Your task to perform on an android device: check battery use Image 0: 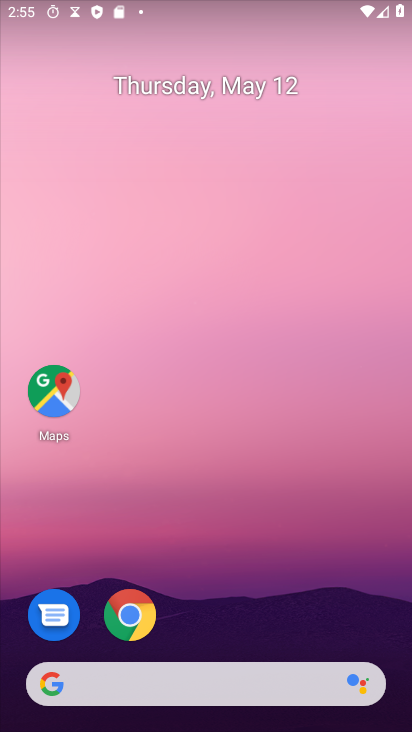
Step 0: drag from (62, 610) to (337, 175)
Your task to perform on an android device: check battery use Image 1: 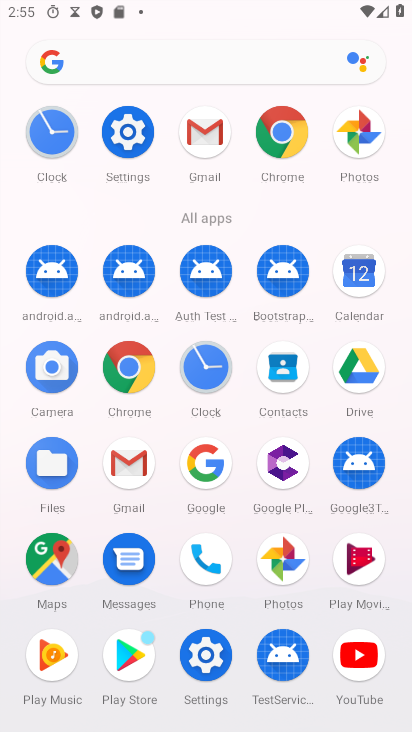
Step 1: click (114, 137)
Your task to perform on an android device: check battery use Image 2: 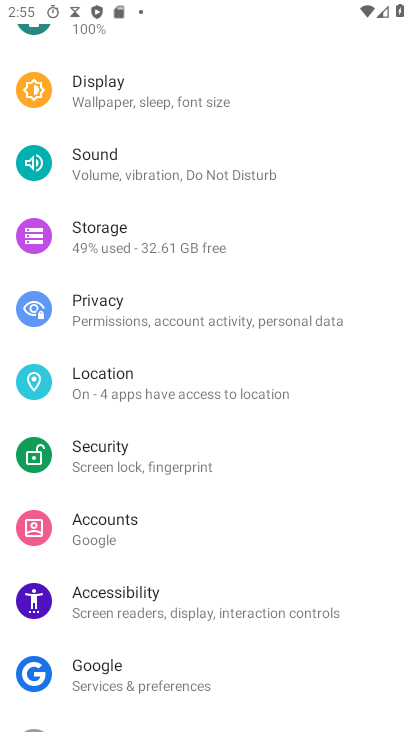
Step 2: drag from (124, 89) to (36, 495)
Your task to perform on an android device: check battery use Image 3: 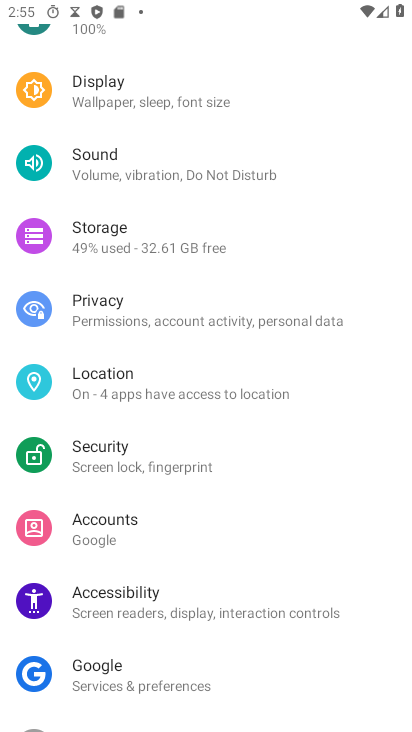
Step 3: drag from (175, 76) to (157, 585)
Your task to perform on an android device: check battery use Image 4: 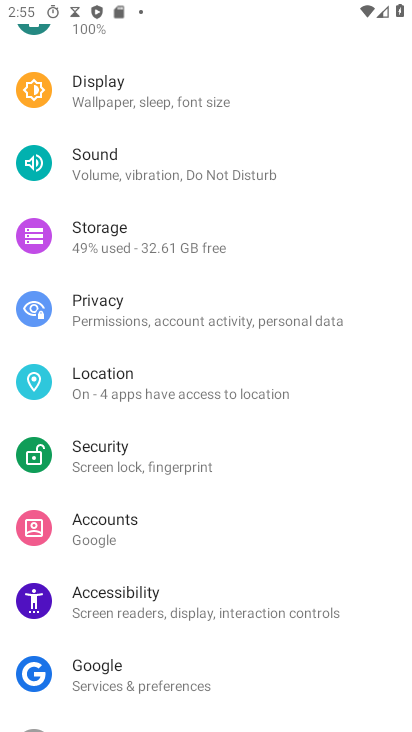
Step 4: drag from (285, 158) to (242, 730)
Your task to perform on an android device: check battery use Image 5: 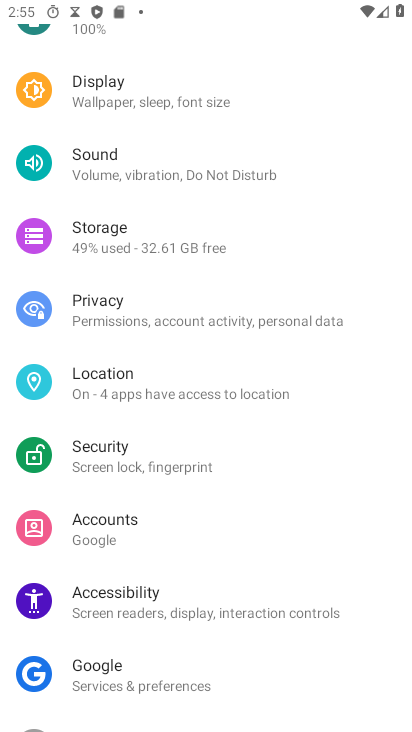
Step 5: drag from (187, 78) to (174, 604)
Your task to perform on an android device: check battery use Image 6: 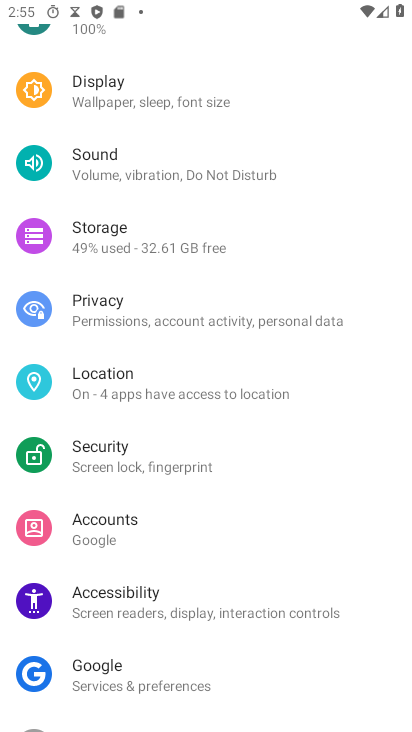
Step 6: drag from (174, 89) to (176, 544)
Your task to perform on an android device: check battery use Image 7: 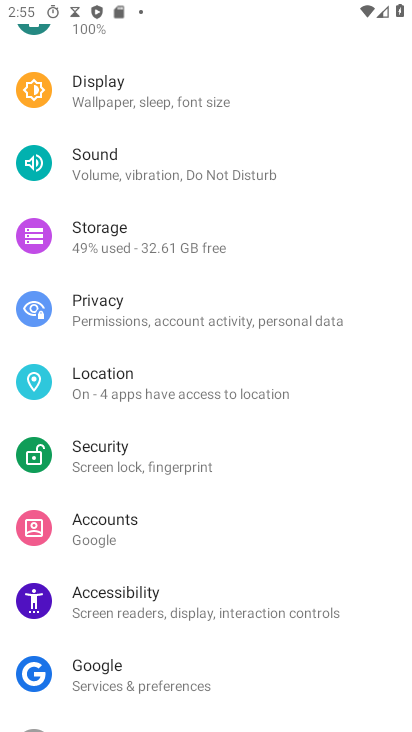
Step 7: drag from (239, 65) to (244, 593)
Your task to perform on an android device: check battery use Image 8: 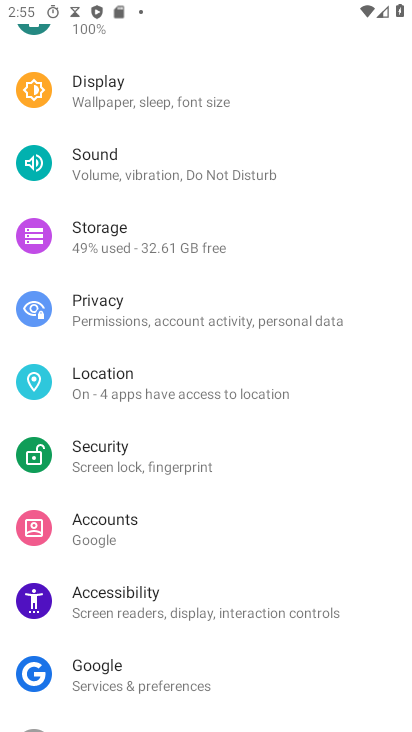
Step 8: drag from (252, 36) to (299, 495)
Your task to perform on an android device: check battery use Image 9: 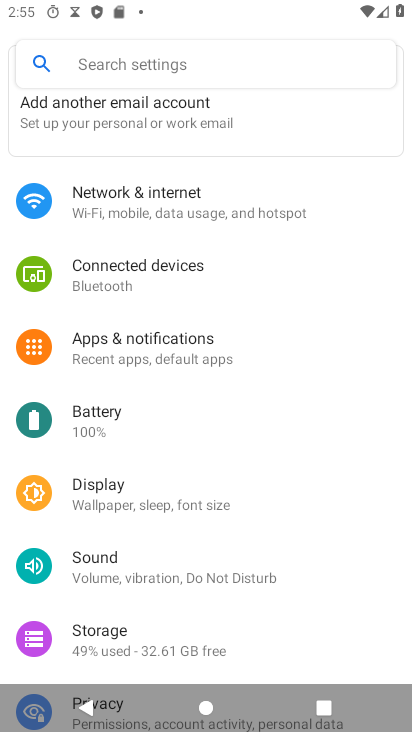
Step 9: click (130, 415)
Your task to perform on an android device: check battery use Image 10: 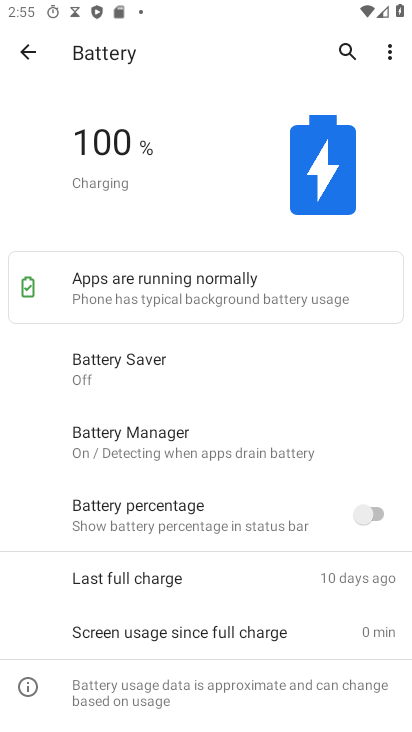
Step 10: task complete